Your task to perform on an android device: Show me popular videos on Youtube Image 0: 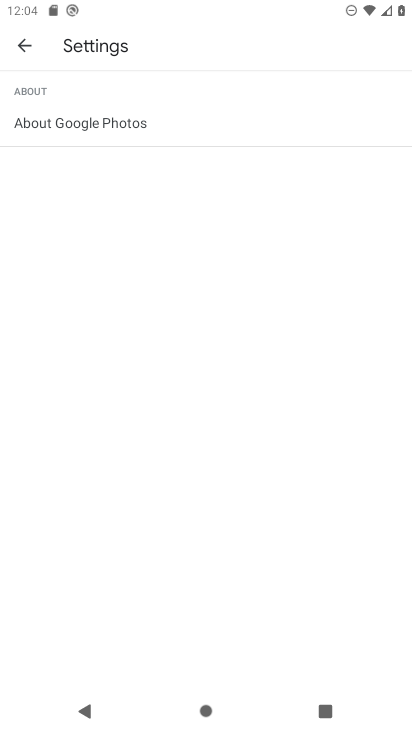
Step 0: press home button
Your task to perform on an android device: Show me popular videos on Youtube Image 1: 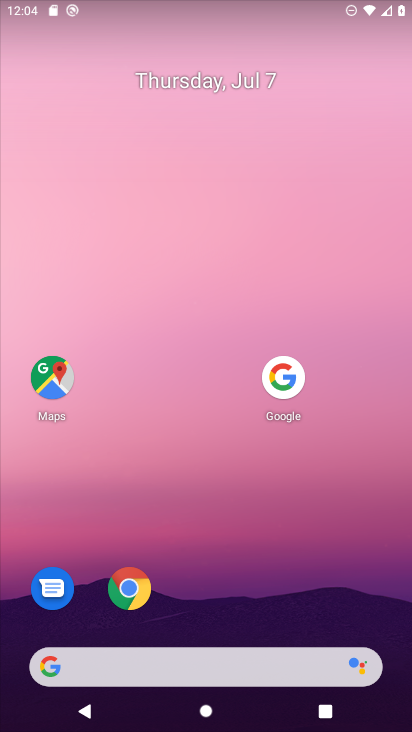
Step 1: drag from (194, 655) to (327, 181)
Your task to perform on an android device: Show me popular videos on Youtube Image 2: 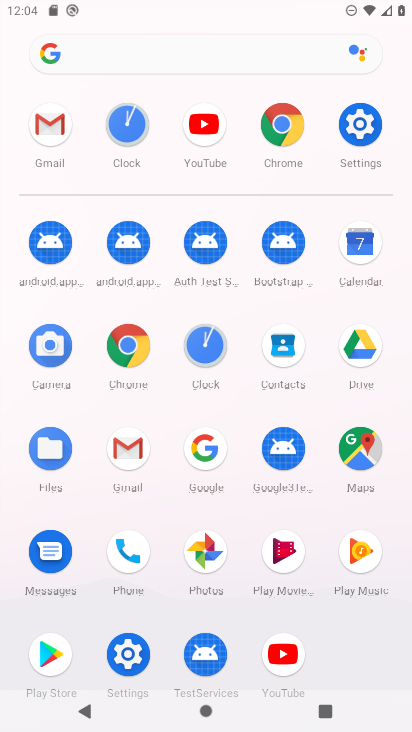
Step 2: click (283, 650)
Your task to perform on an android device: Show me popular videos on Youtube Image 3: 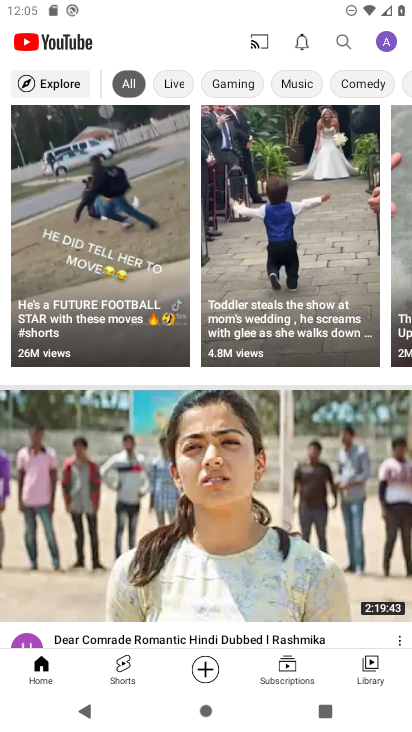
Step 3: task complete